Your task to perform on an android device: add a label to a message in the gmail app Image 0: 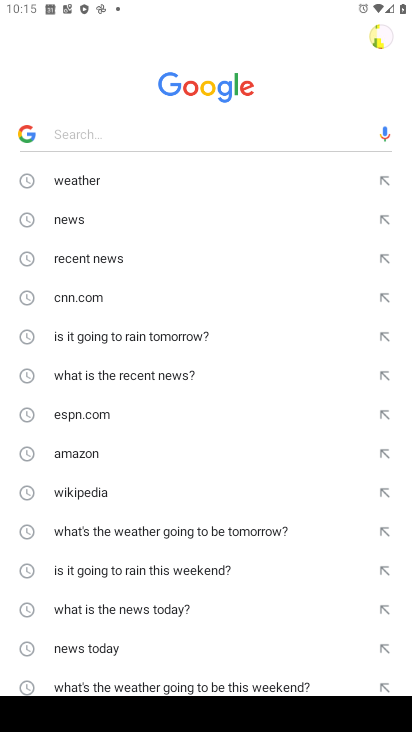
Step 0: press home button
Your task to perform on an android device: add a label to a message in the gmail app Image 1: 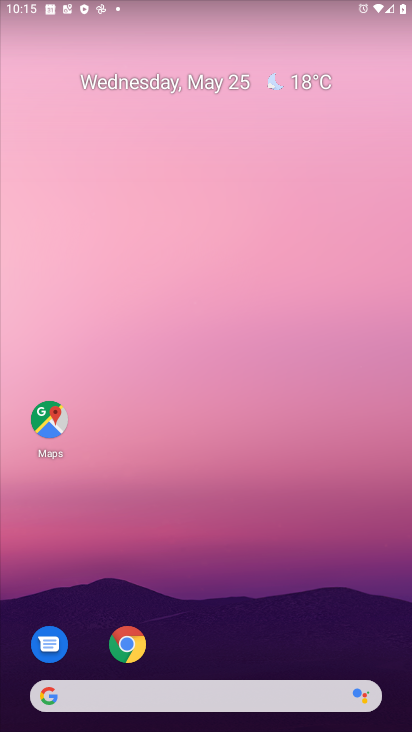
Step 1: drag from (206, 663) to (213, 41)
Your task to perform on an android device: add a label to a message in the gmail app Image 2: 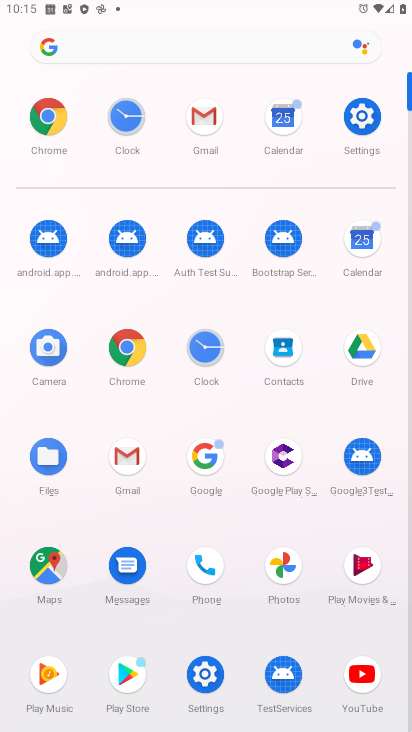
Step 2: click (202, 110)
Your task to perform on an android device: add a label to a message in the gmail app Image 3: 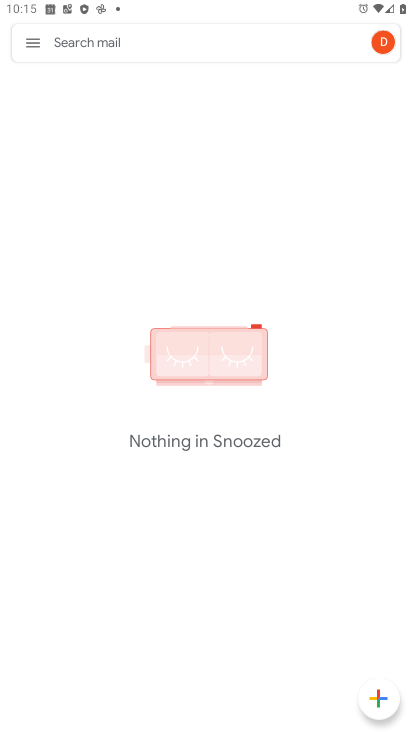
Step 3: click (30, 40)
Your task to perform on an android device: add a label to a message in the gmail app Image 4: 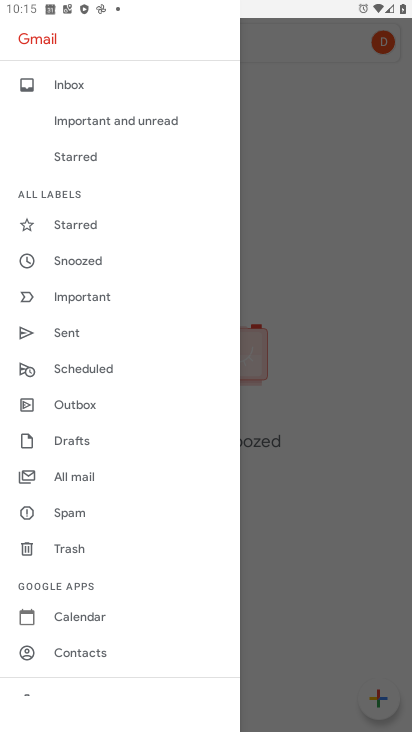
Step 4: click (77, 472)
Your task to perform on an android device: add a label to a message in the gmail app Image 5: 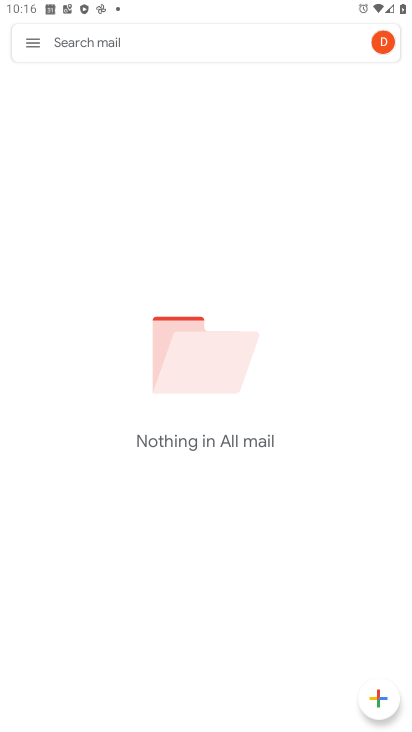
Step 5: task complete